Your task to perform on an android device: change the clock display to digital Image 0: 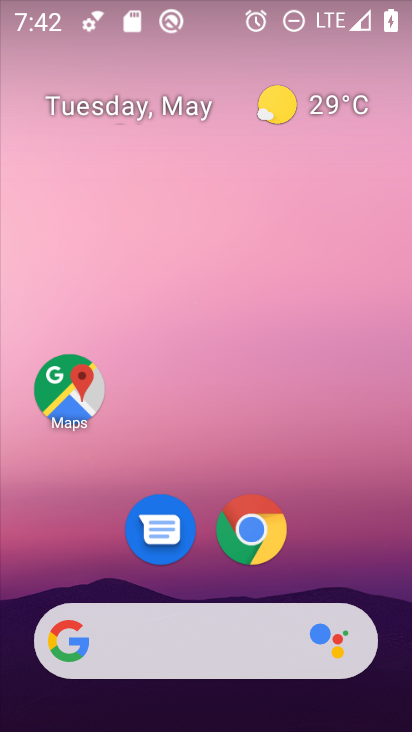
Step 0: drag from (405, 663) to (409, 462)
Your task to perform on an android device: change the clock display to digital Image 1: 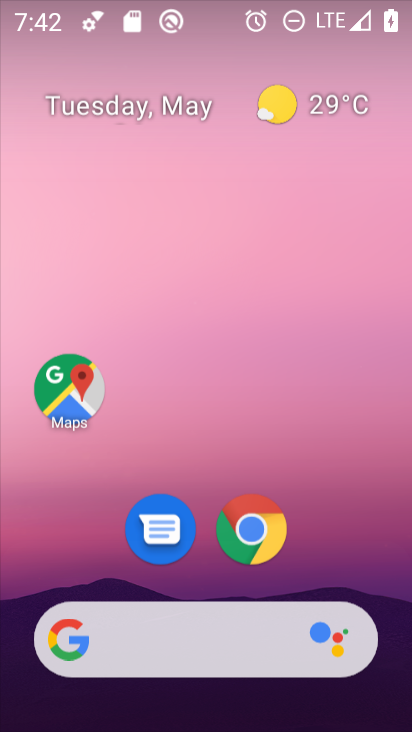
Step 1: click (341, 386)
Your task to perform on an android device: change the clock display to digital Image 2: 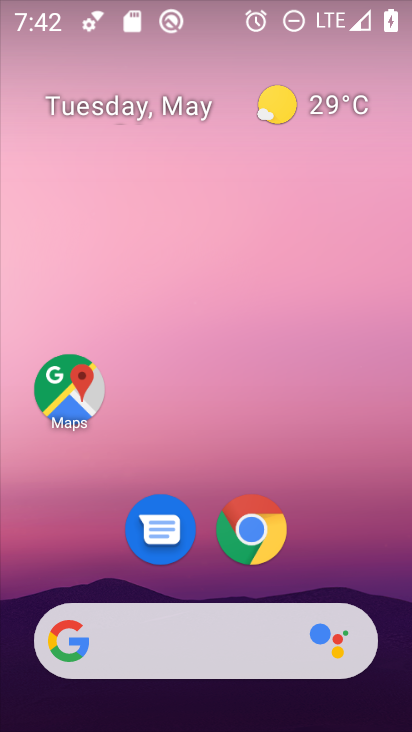
Step 2: drag from (410, 593) to (270, 195)
Your task to perform on an android device: change the clock display to digital Image 3: 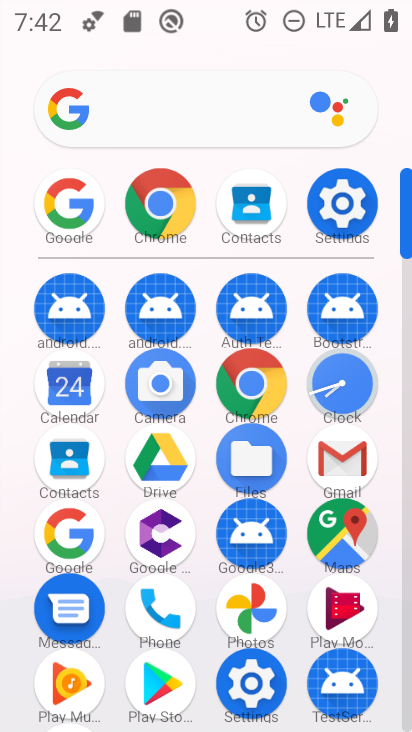
Step 3: click (334, 386)
Your task to perform on an android device: change the clock display to digital Image 4: 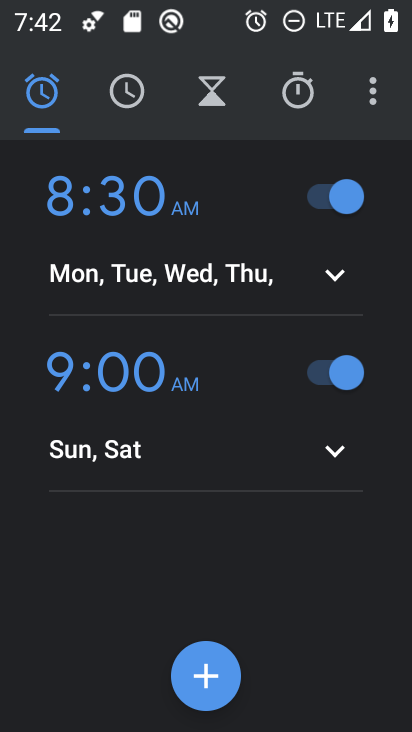
Step 4: click (372, 84)
Your task to perform on an android device: change the clock display to digital Image 5: 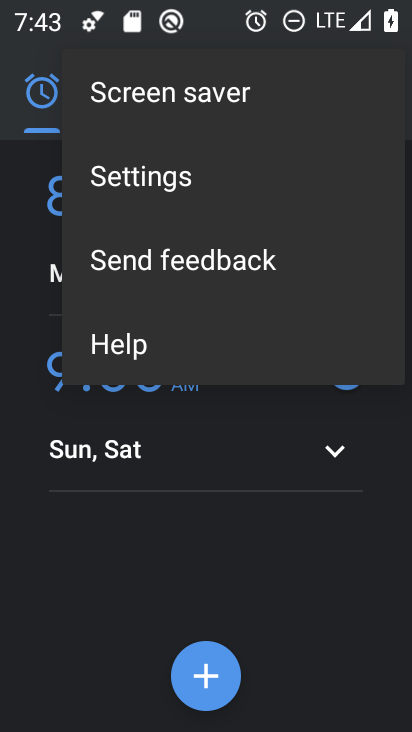
Step 5: click (213, 192)
Your task to perform on an android device: change the clock display to digital Image 6: 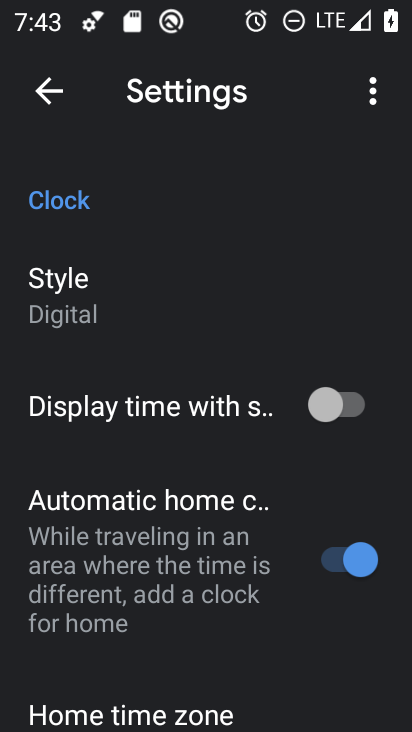
Step 6: click (85, 309)
Your task to perform on an android device: change the clock display to digital Image 7: 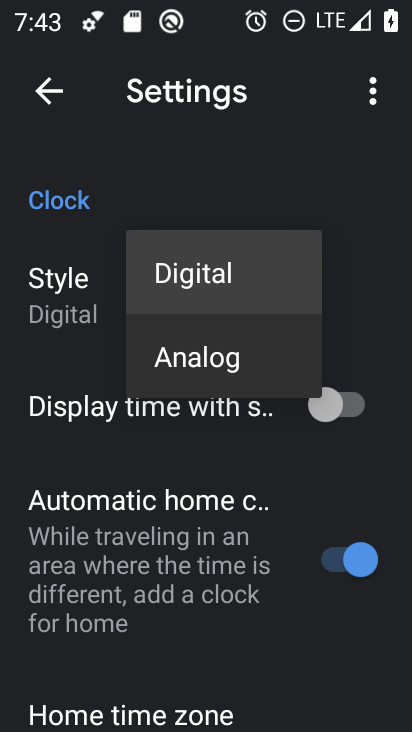
Step 7: click (229, 278)
Your task to perform on an android device: change the clock display to digital Image 8: 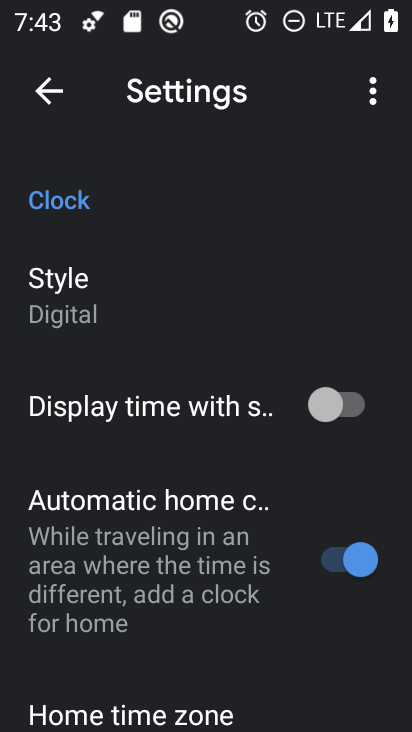
Step 8: task complete